Your task to perform on an android device: set an alarm Image 0: 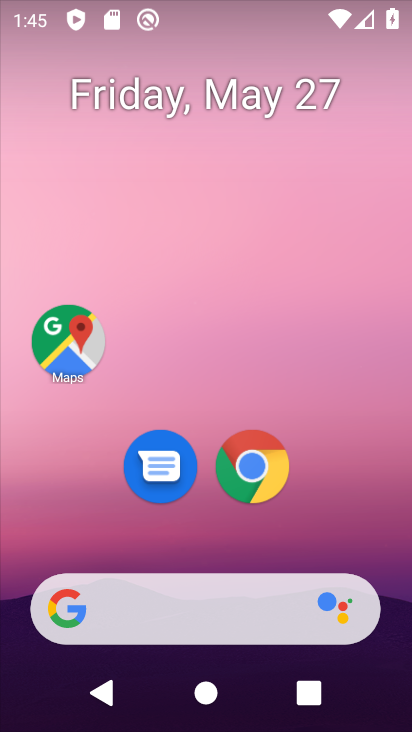
Step 0: drag from (323, 404) to (333, 101)
Your task to perform on an android device: set an alarm Image 1: 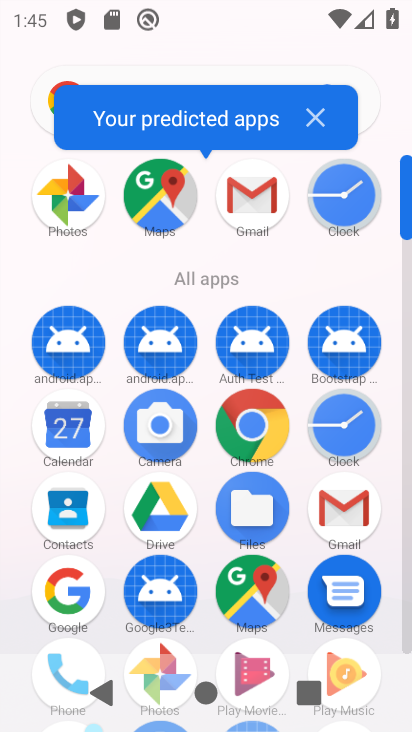
Step 1: click (333, 207)
Your task to perform on an android device: set an alarm Image 2: 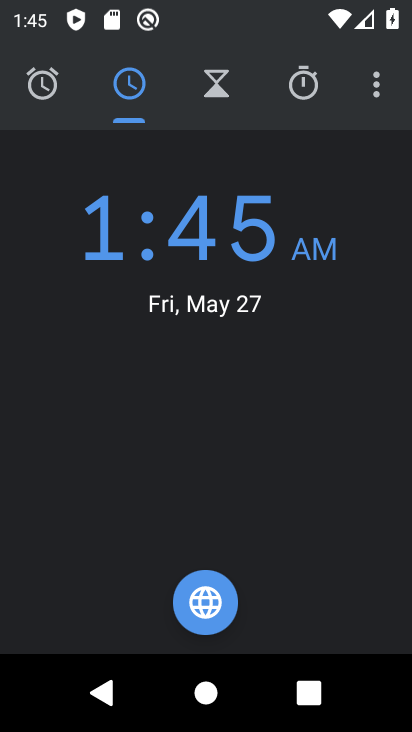
Step 2: click (50, 97)
Your task to perform on an android device: set an alarm Image 3: 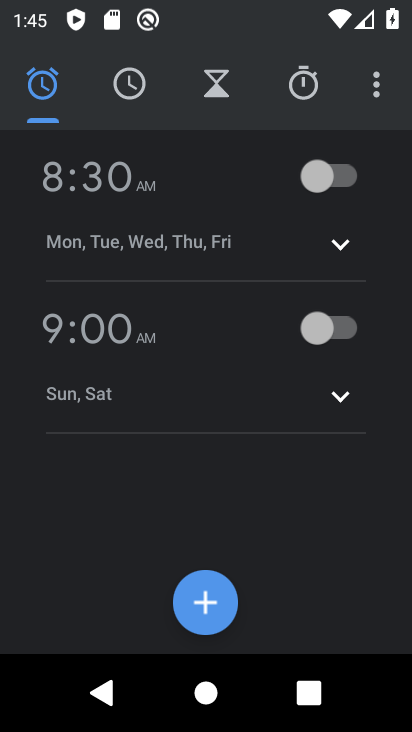
Step 3: click (196, 606)
Your task to perform on an android device: set an alarm Image 4: 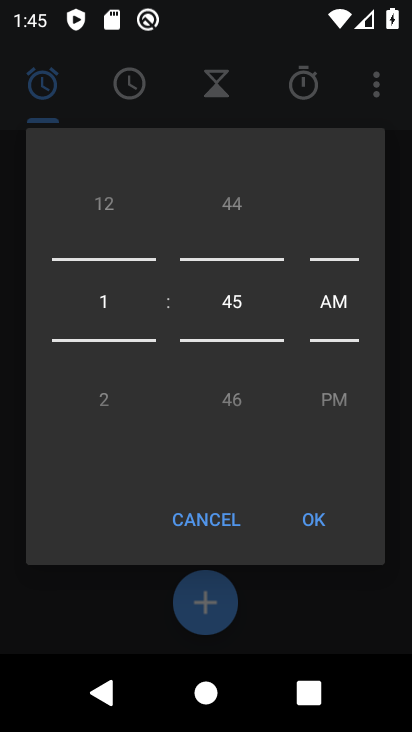
Step 4: drag from (120, 388) to (137, 207)
Your task to perform on an android device: set an alarm Image 5: 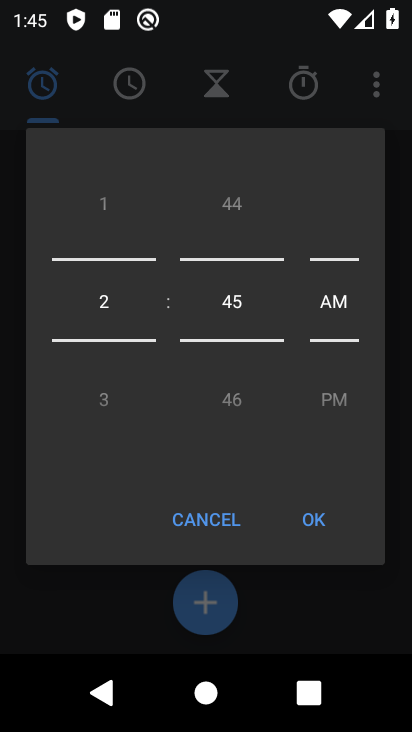
Step 5: drag from (128, 392) to (143, 216)
Your task to perform on an android device: set an alarm Image 6: 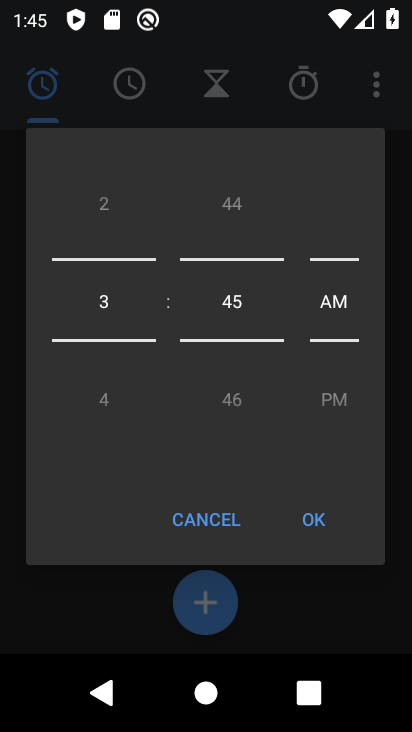
Step 6: drag from (120, 397) to (140, 237)
Your task to perform on an android device: set an alarm Image 7: 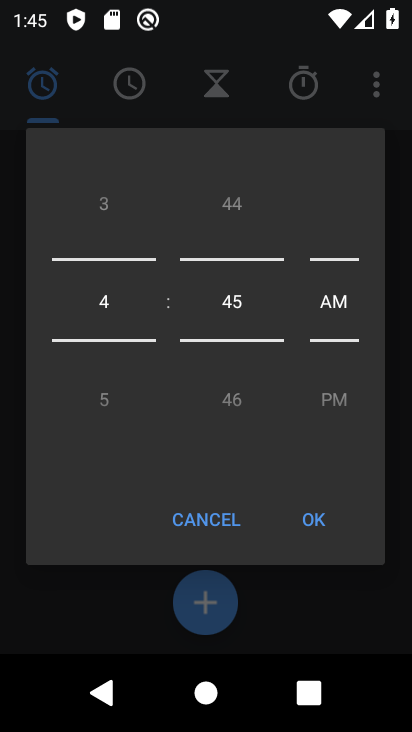
Step 7: drag from (101, 410) to (105, 241)
Your task to perform on an android device: set an alarm Image 8: 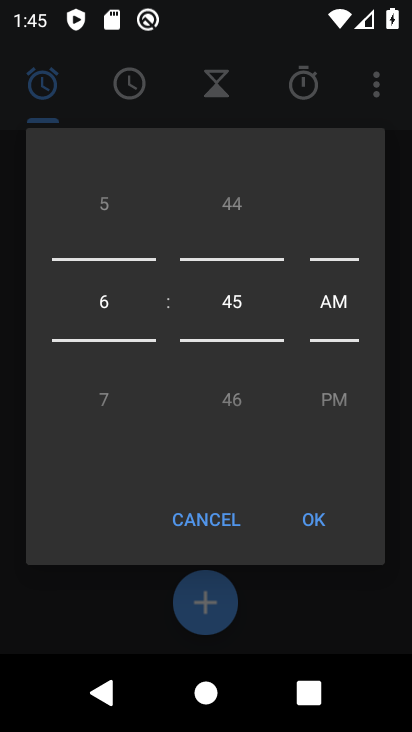
Step 8: drag from (326, 395) to (341, 290)
Your task to perform on an android device: set an alarm Image 9: 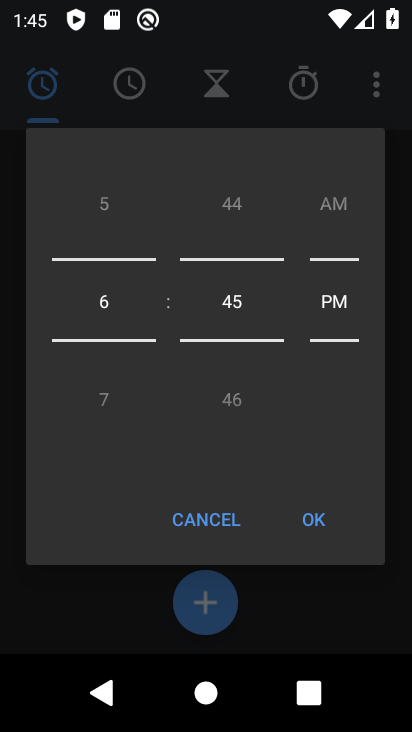
Step 9: drag from (229, 291) to (223, 441)
Your task to perform on an android device: set an alarm Image 10: 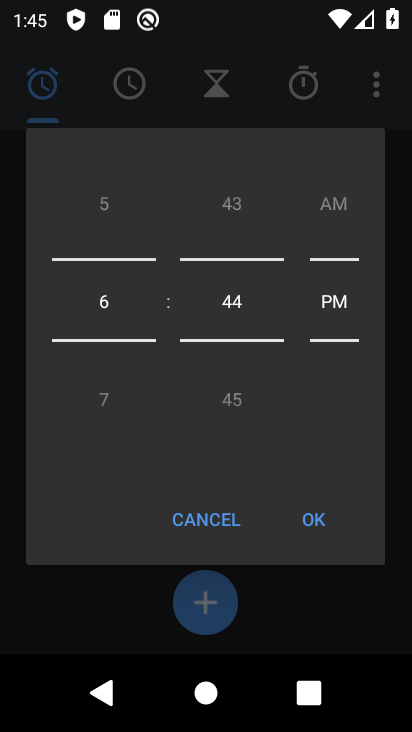
Step 10: drag from (236, 188) to (220, 427)
Your task to perform on an android device: set an alarm Image 11: 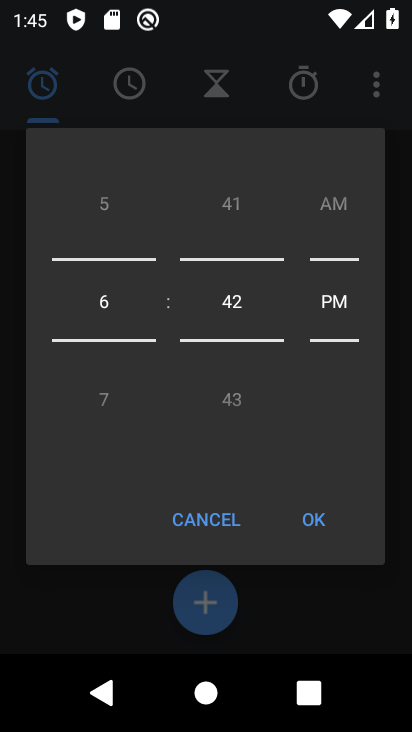
Step 11: drag from (328, 209) to (322, 376)
Your task to perform on an android device: set an alarm Image 12: 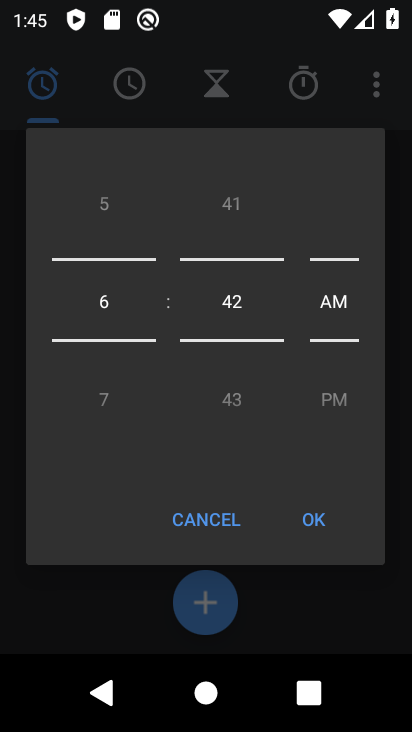
Step 12: click (321, 504)
Your task to perform on an android device: set an alarm Image 13: 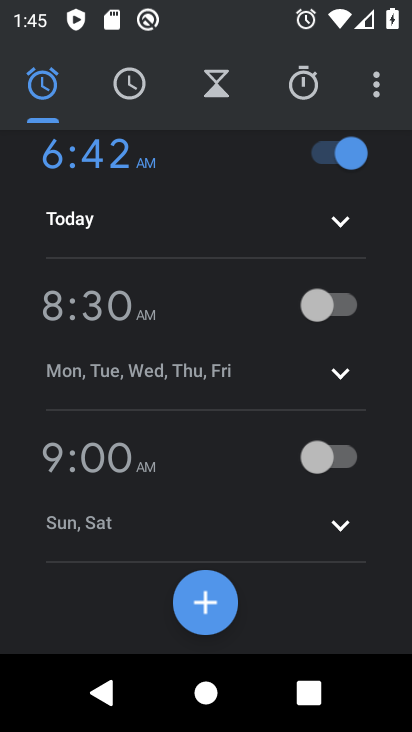
Step 13: task complete